Your task to perform on an android device: star an email in the gmail app Image 0: 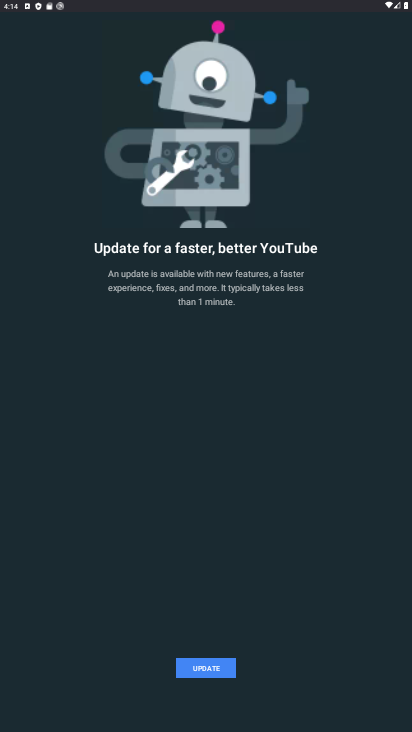
Step 0: press home button
Your task to perform on an android device: star an email in the gmail app Image 1: 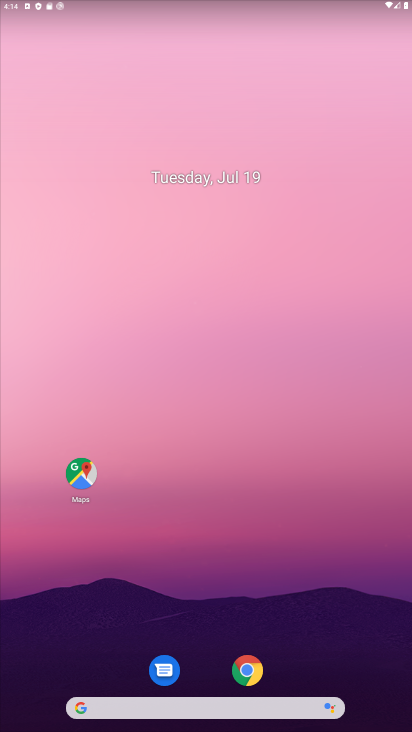
Step 1: drag from (262, 652) to (348, 0)
Your task to perform on an android device: star an email in the gmail app Image 2: 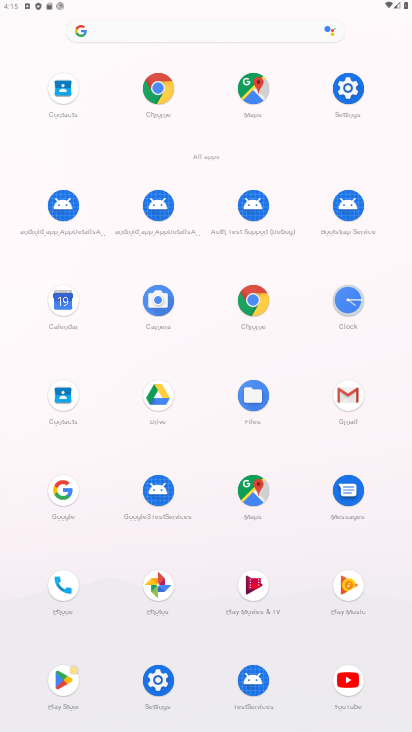
Step 2: click (349, 395)
Your task to perform on an android device: star an email in the gmail app Image 3: 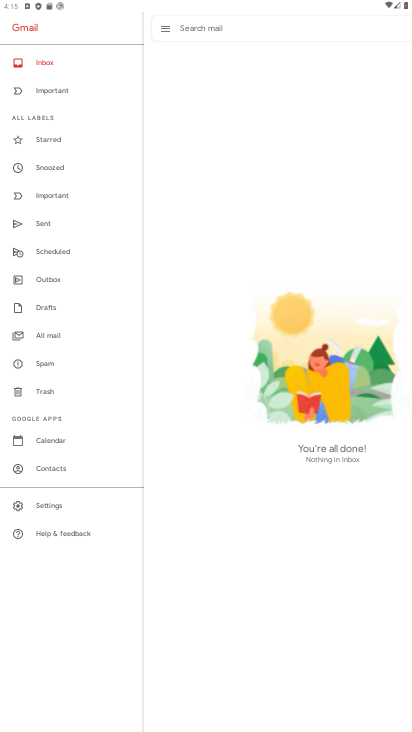
Step 3: click (55, 141)
Your task to perform on an android device: star an email in the gmail app Image 4: 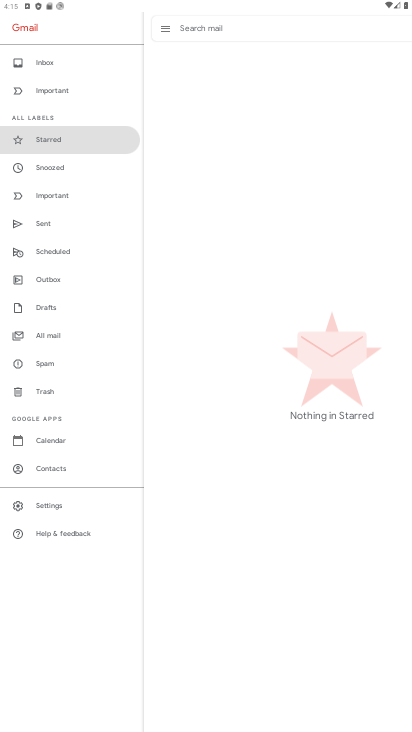
Step 4: task complete